Your task to perform on an android device: turn on javascript in the chrome app Image 0: 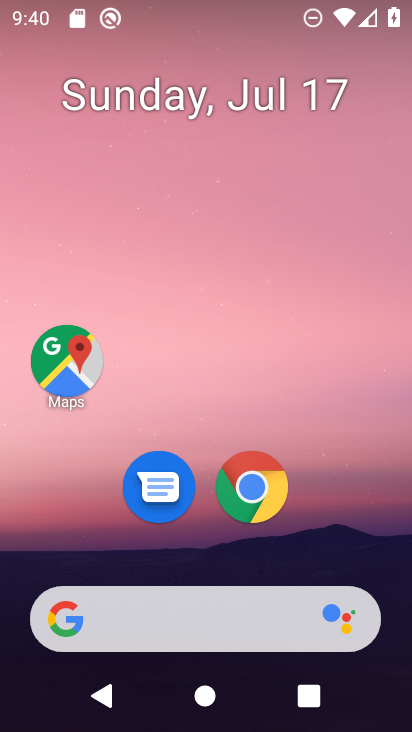
Step 0: press home button
Your task to perform on an android device: turn on javascript in the chrome app Image 1: 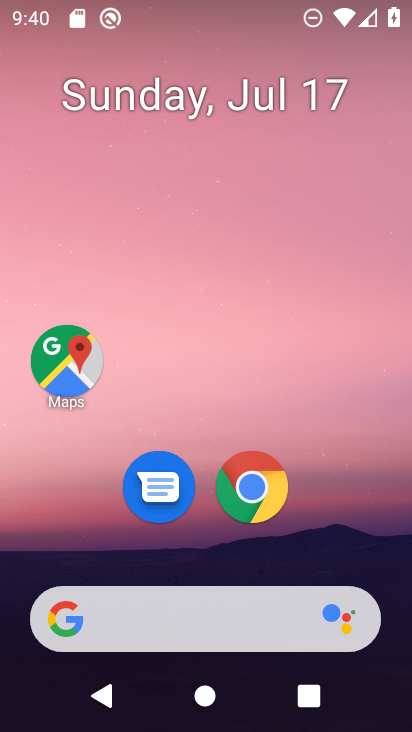
Step 1: drag from (296, 566) to (343, 4)
Your task to perform on an android device: turn on javascript in the chrome app Image 2: 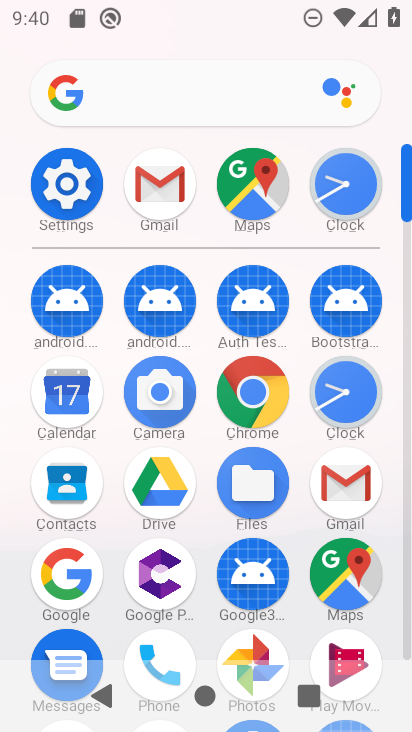
Step 2: click (257, 409)
Your task to perform on an android device: turn on javascript in the chrome app Image 3: 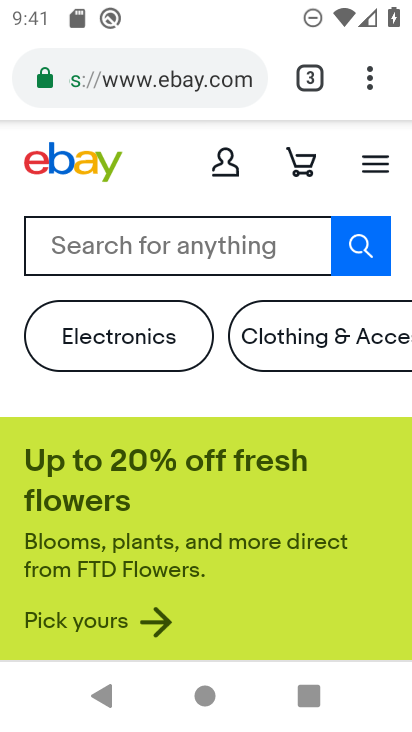
Step 3: drag from (371, 77) to (134, 550)
Your task to perform on an android device: turn on javascript in the chrome app Image 4: 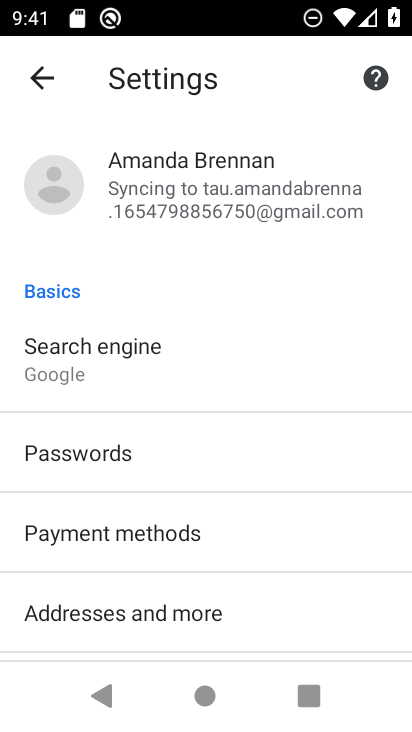
Step 4: drag from (303, 603) to (353, 165)
Your task to perform on an android device: turn on javascript in the chrome app Image 5: 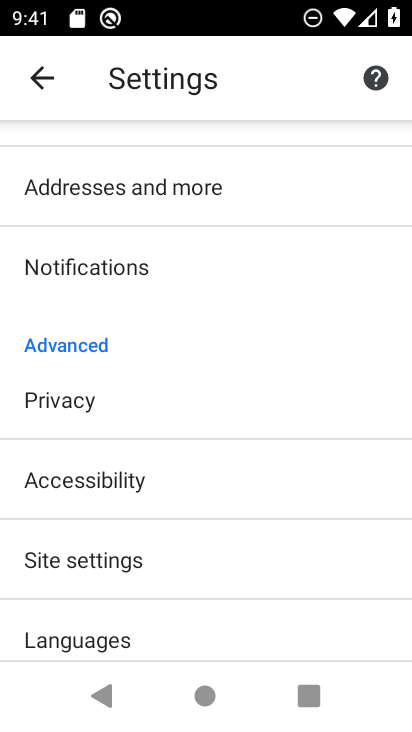
Step 5: click (78, 566)
Your task to perform on an android device: turn on javascript in the chrome app Image 6: 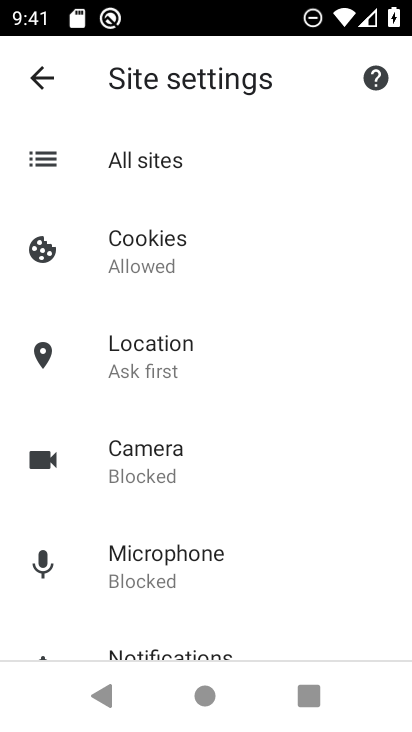
Step 6: drag from (331, 597) to (355, 193)
Your task to perform on an android device: turn on javascript in the chrome app Image 7: 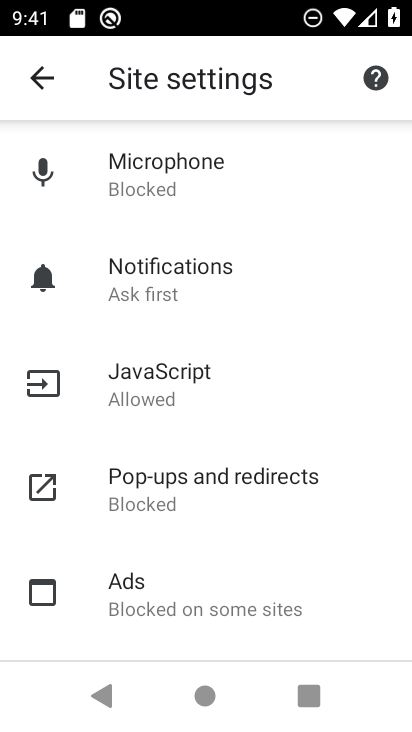
Step 7: click (155, 380)
Your task to perform on an android device: turn on javascript in the chrome app Image 8: 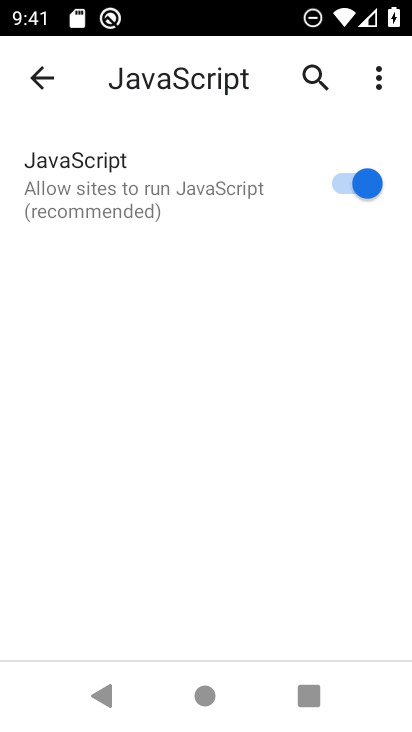
Step 8: task complete